Your task to perform on an android device: Go to Google maps Image 0: 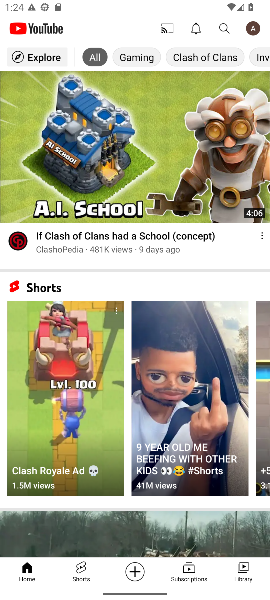
Step 0: press home button
Your task to perform on an android device: Go to Google maps Image 1: 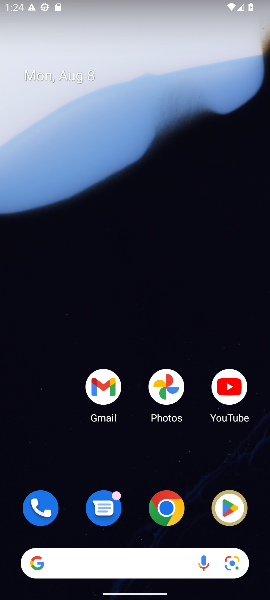
Step 1: drag from (130, 472) to (127, 40)
Your task to perform on an android device: Go to Google maps Image 2: 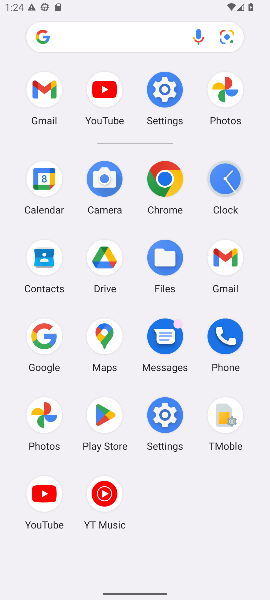
Step 2: click (108, 336)
Your task to perform on an android device: Go to Google maps Image 3: 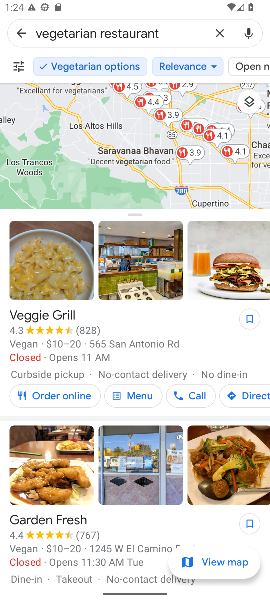
Step 3: task complete